Your task to perform on an android device: Open privacy settings Image 0: 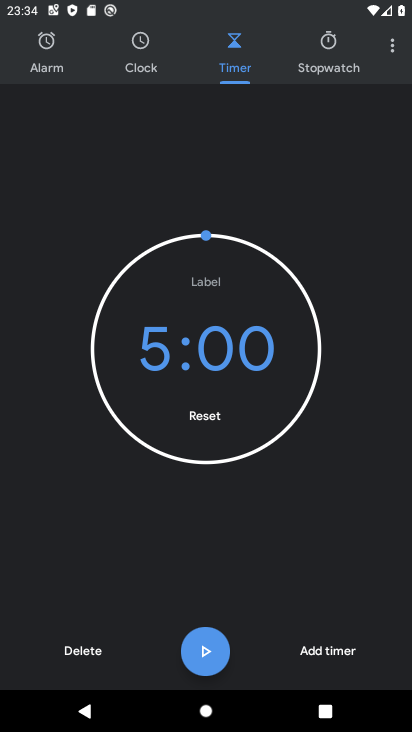
Step 0: press home button
Your task to perform on an android device: Open privacy settings Image 1: 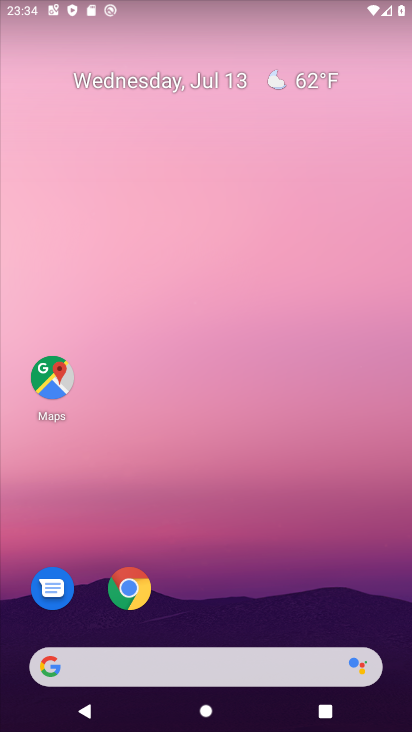
Step 1: drag from (198, 655) to (191, 409)
Your task to perform on an android device: Open privacy settings Image 2: 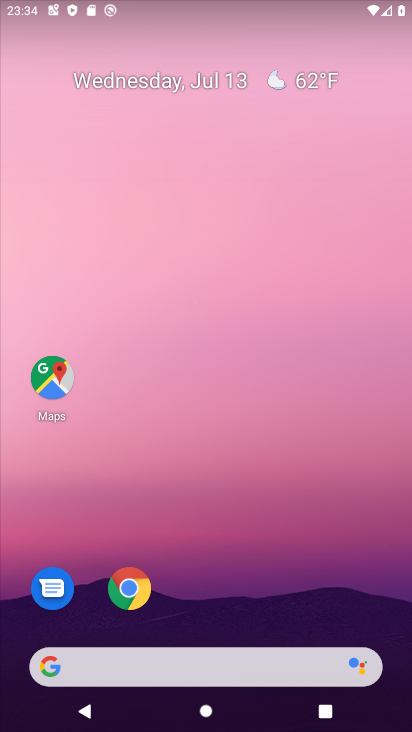
Step 2: drag from (235, 652) to (224, 345)
Your task to perform on an android device: Open privacy settings Image 3: 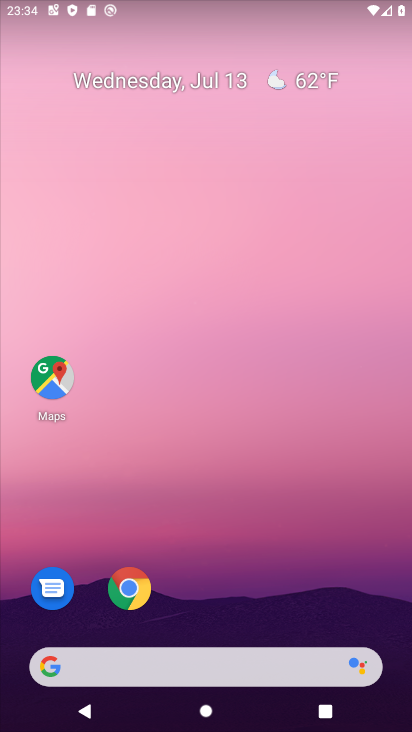
Step 3: drag from (227, 646) to (173, 274)
Your task to perform on an android device: Open privacy settings Image 4: 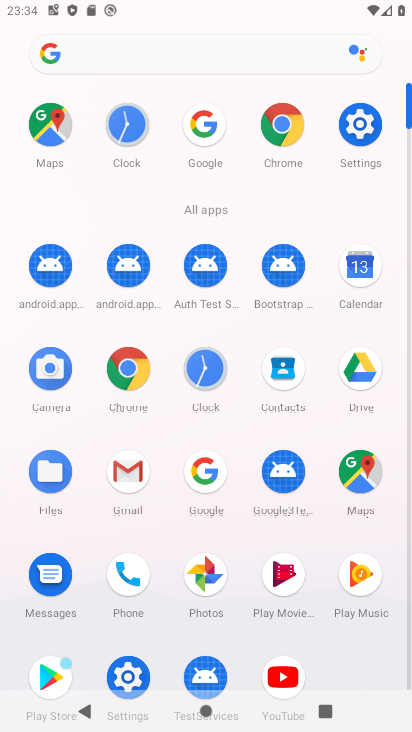
Step 4: click (353, 142)
Your task to perform on an android device: Open privacy settings Image 5: 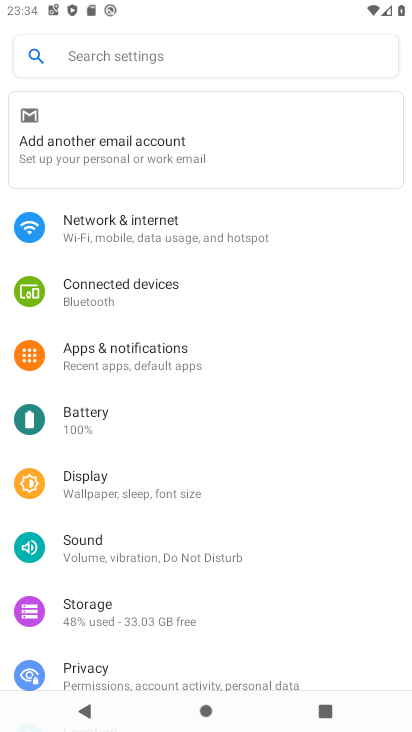
Step 5: click (106, 680)
Your task to perform on an android device: Open privacy settings Image 6: 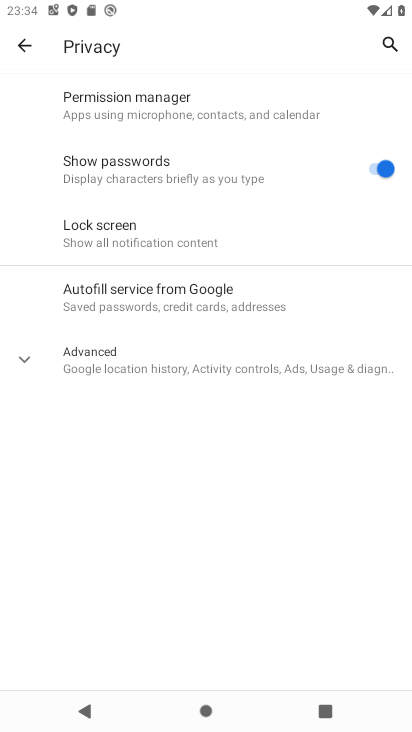
Step 6: click (90, 365)
Your task to perform on an android device: Open privacy settings Image 7: 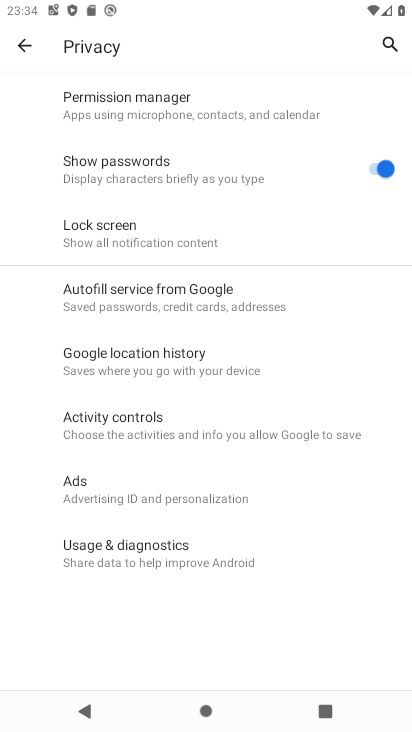
Step 7: task complete